Your task to perform on an android device: Open Amazon Image 0: 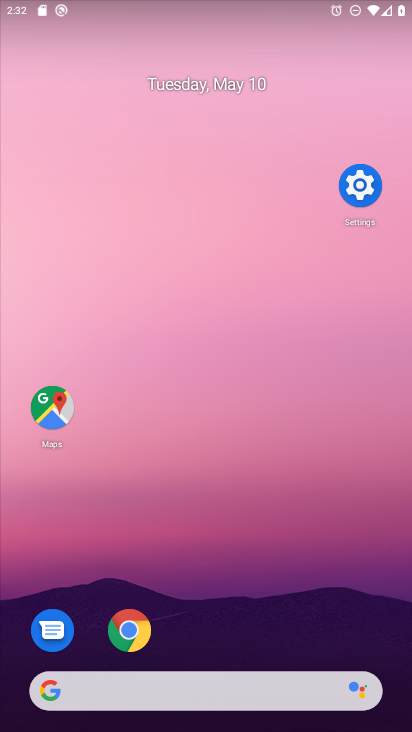
Step 0: drag from (237, 340) to (156, 82)
Your task to perform on an android device: Open Amazon Image 1: 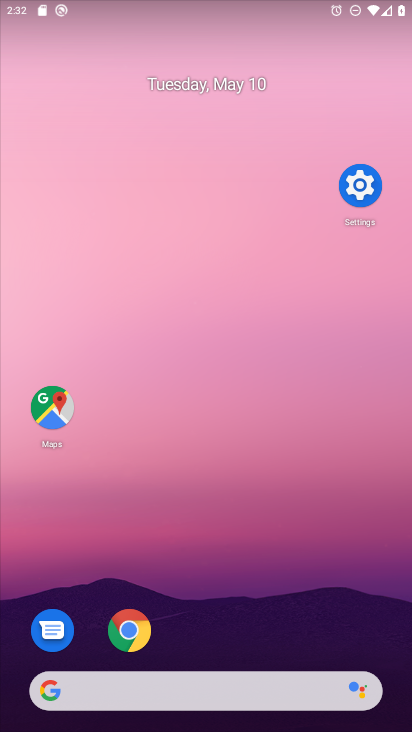
Step 1: drag from (279, 472) to (212, 212)
Your task to perform on an android device: Open Amazon Image 2: 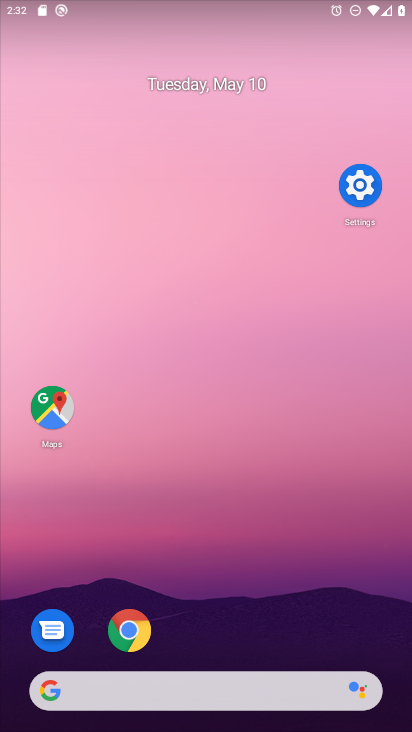
Step 2: drag from (242, 464) to (107, 91)
Your task to perform on an android device: Open Amazon Image 3: 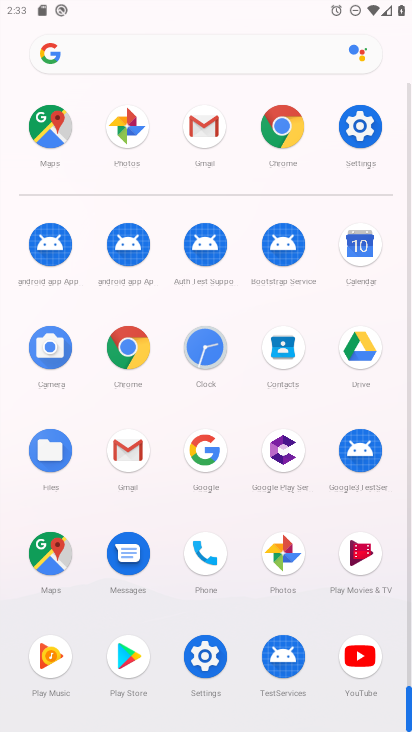
Step 3: click (297, 128)
Your task to perform on an android device: Open Amazon Image 4: 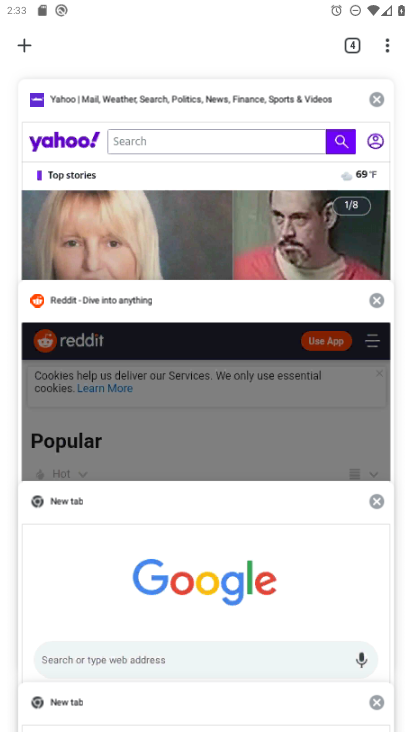
Step 4: drag from (380, 43) to (227, 48)
Your task to perform on an android device: Open Amazon Image 5: 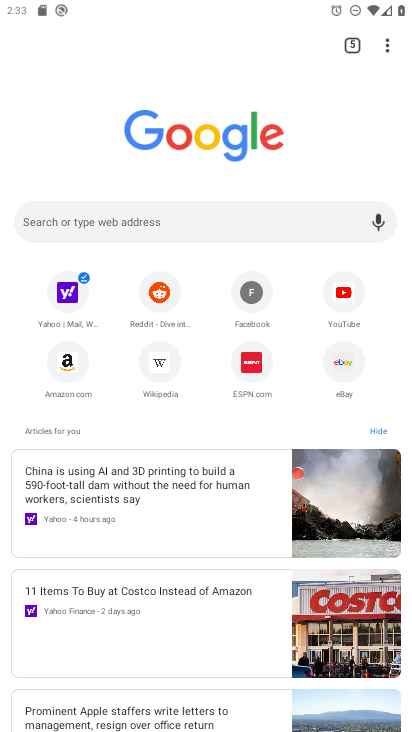
Step 5: click (74, 364)
Your task to perform on an android device: Open Amazon Image 6: 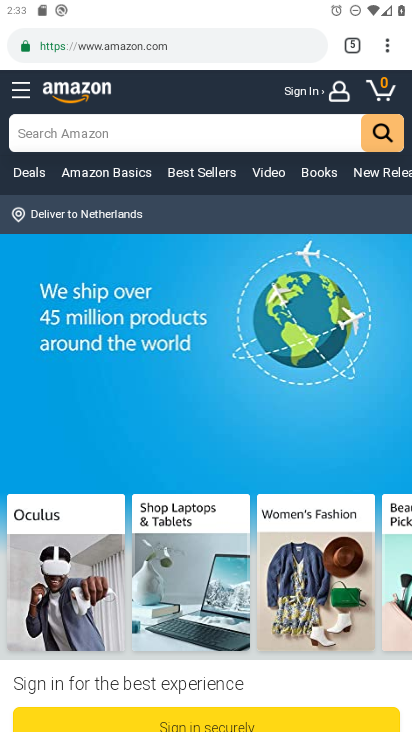
Step 6: task complete